Your task to perform on an android device: Set the phone to "Do not disturb". Image 0: 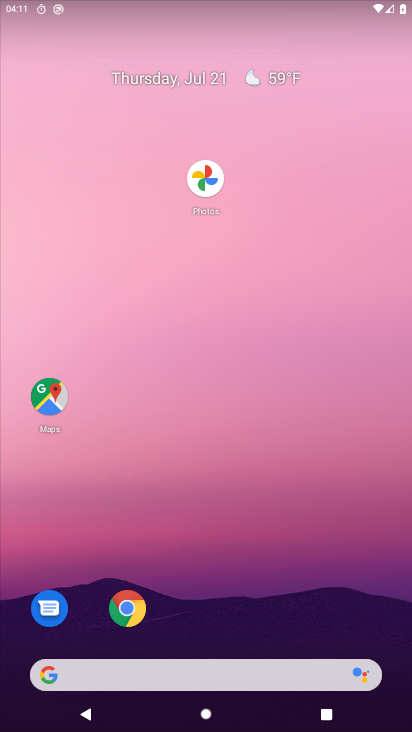
Step 0: drag from (128, 6) to (126, 469)
Your task to perform on an android device: Set the phone to "Do not disturb". Image 1: 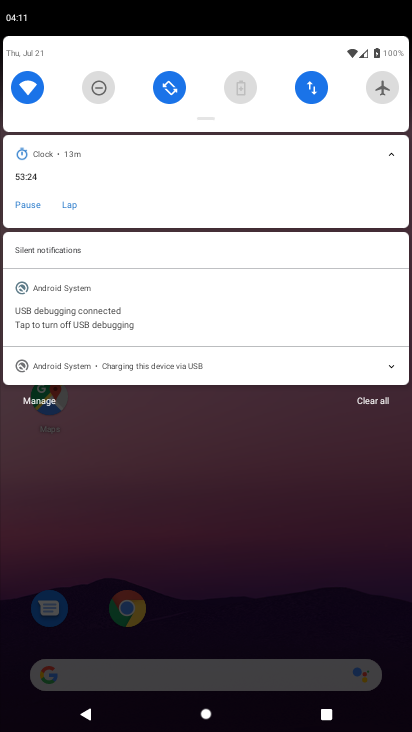
Step 1: click (99, 84)
Your task to perform on an android device: Set the phone to "Do not disturb". Image 2: 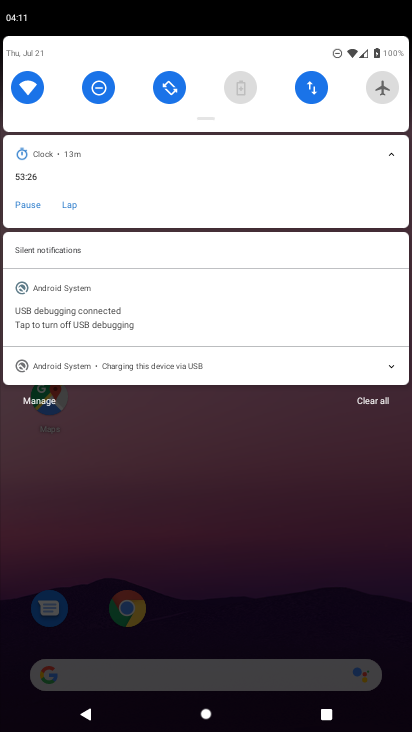
Step 2: task complete